Your task to perform on an android device: What's the weather today? Image 0: 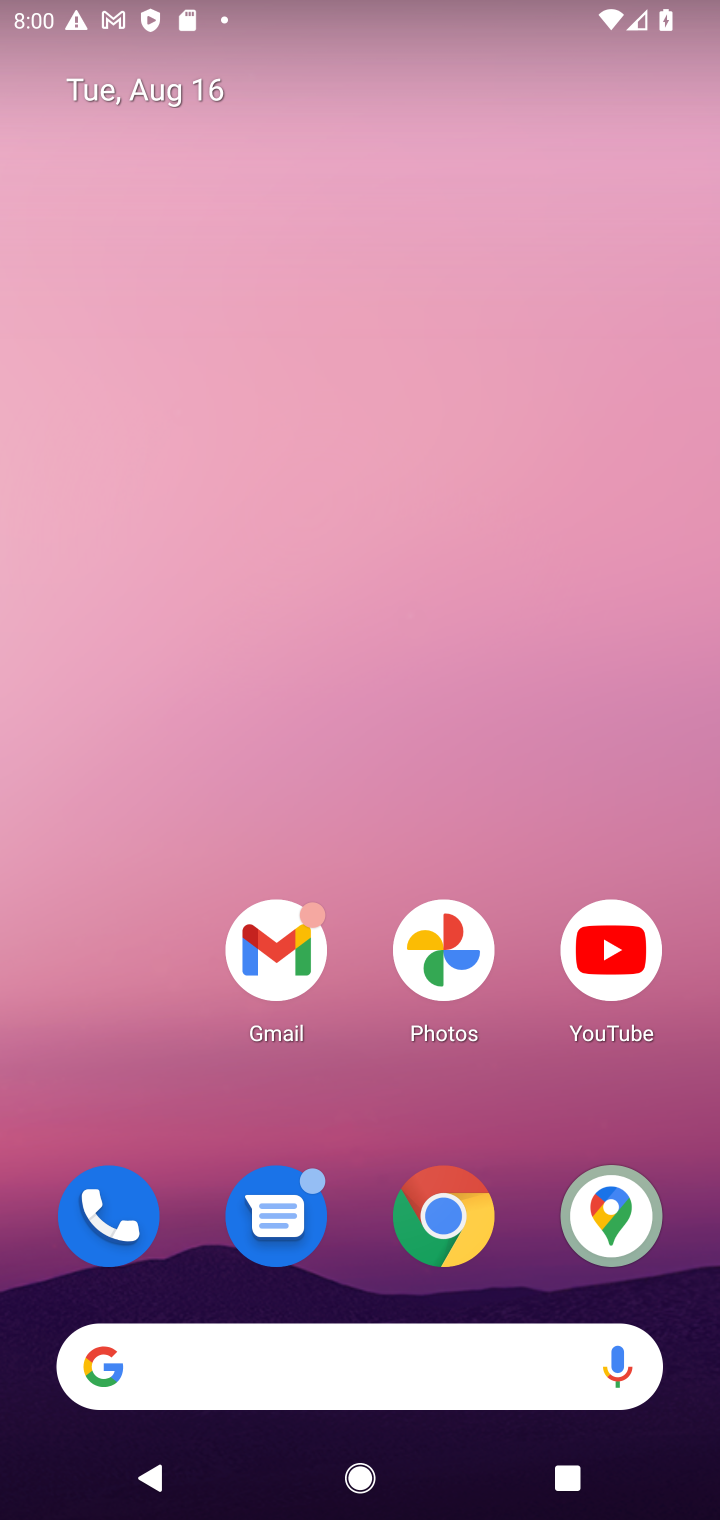
Step 0: click (335, 1353)
Your task to perform on an android device: What's the weather today? Image 1: 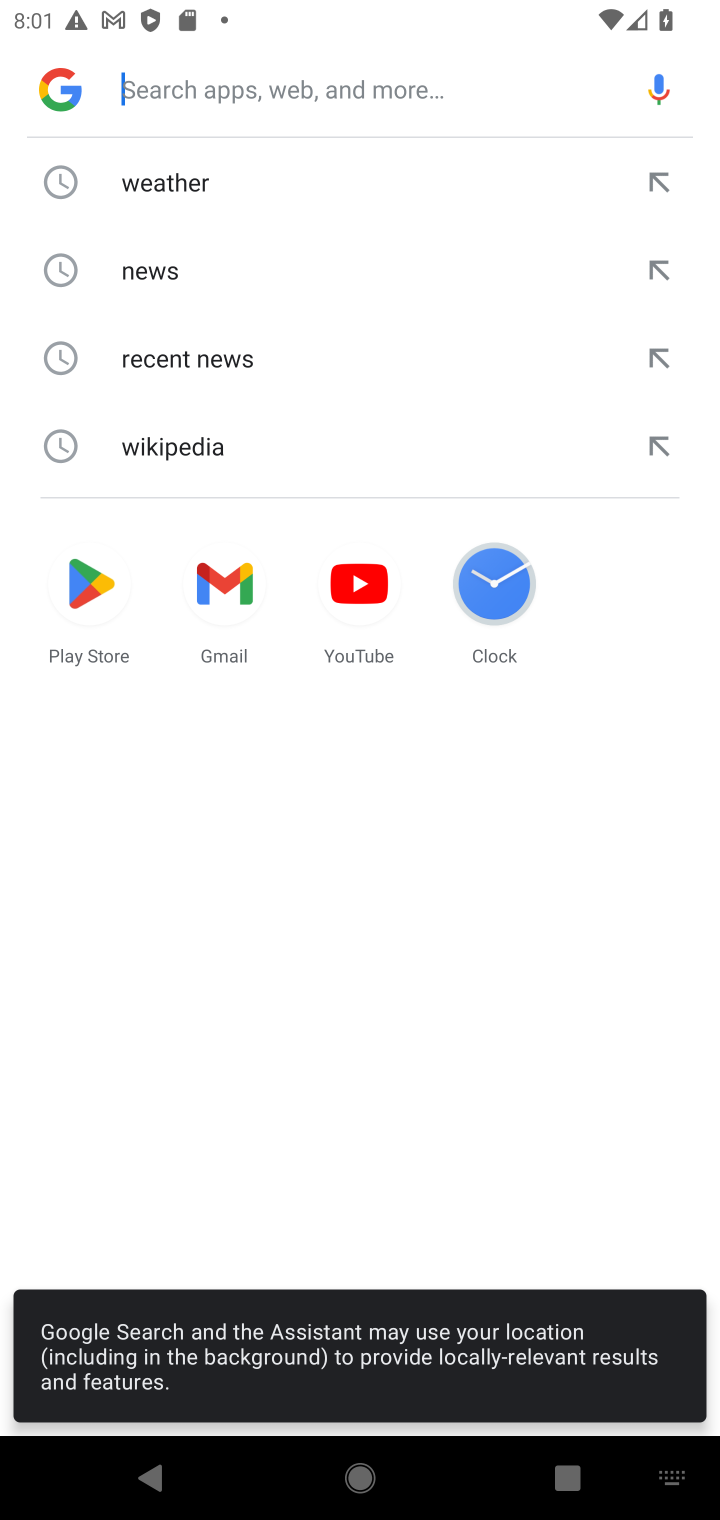
Step 1: click (160, 186)
Your task to perform on an android device: What's the weather today? Image 2: 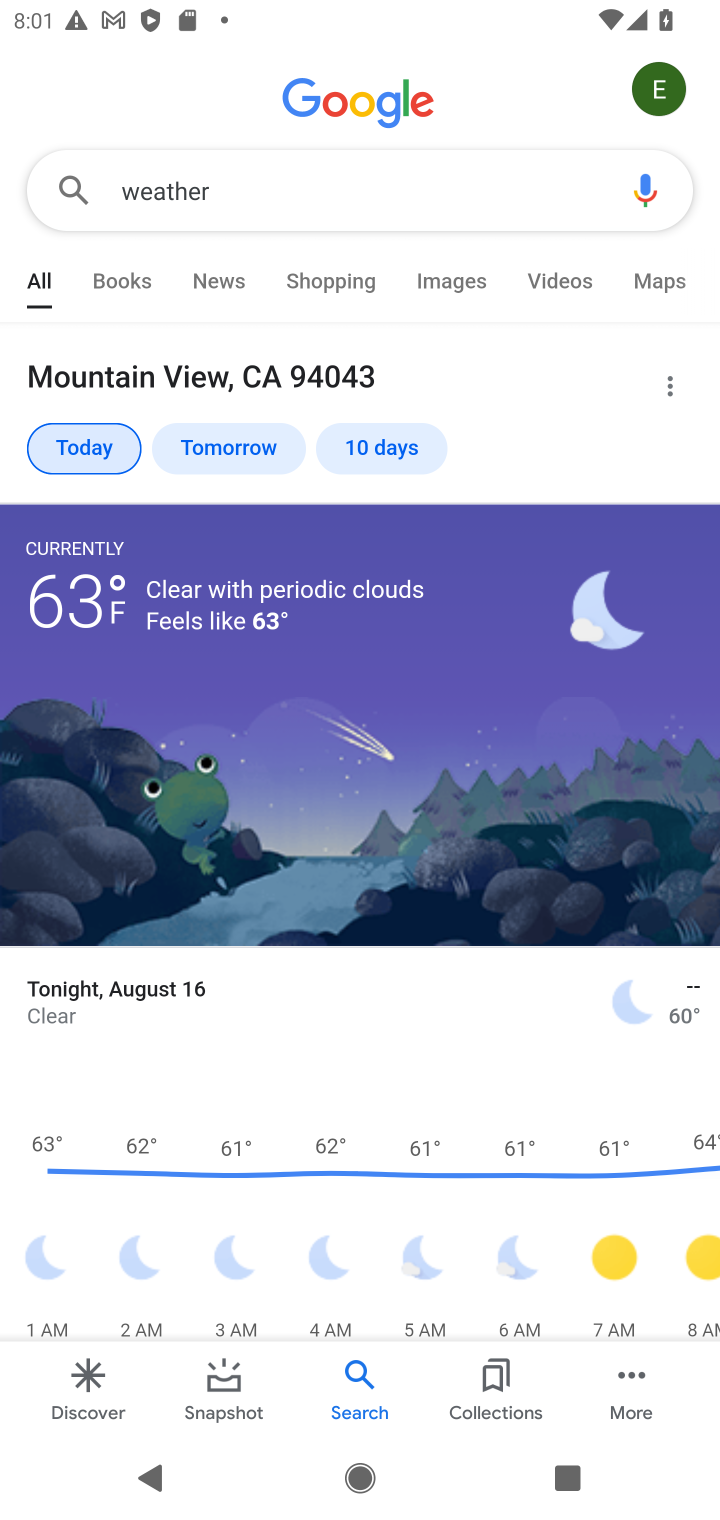
Step 2: click (74, 409)
Your task to perform on an android device: What's the weather today? Image 3: 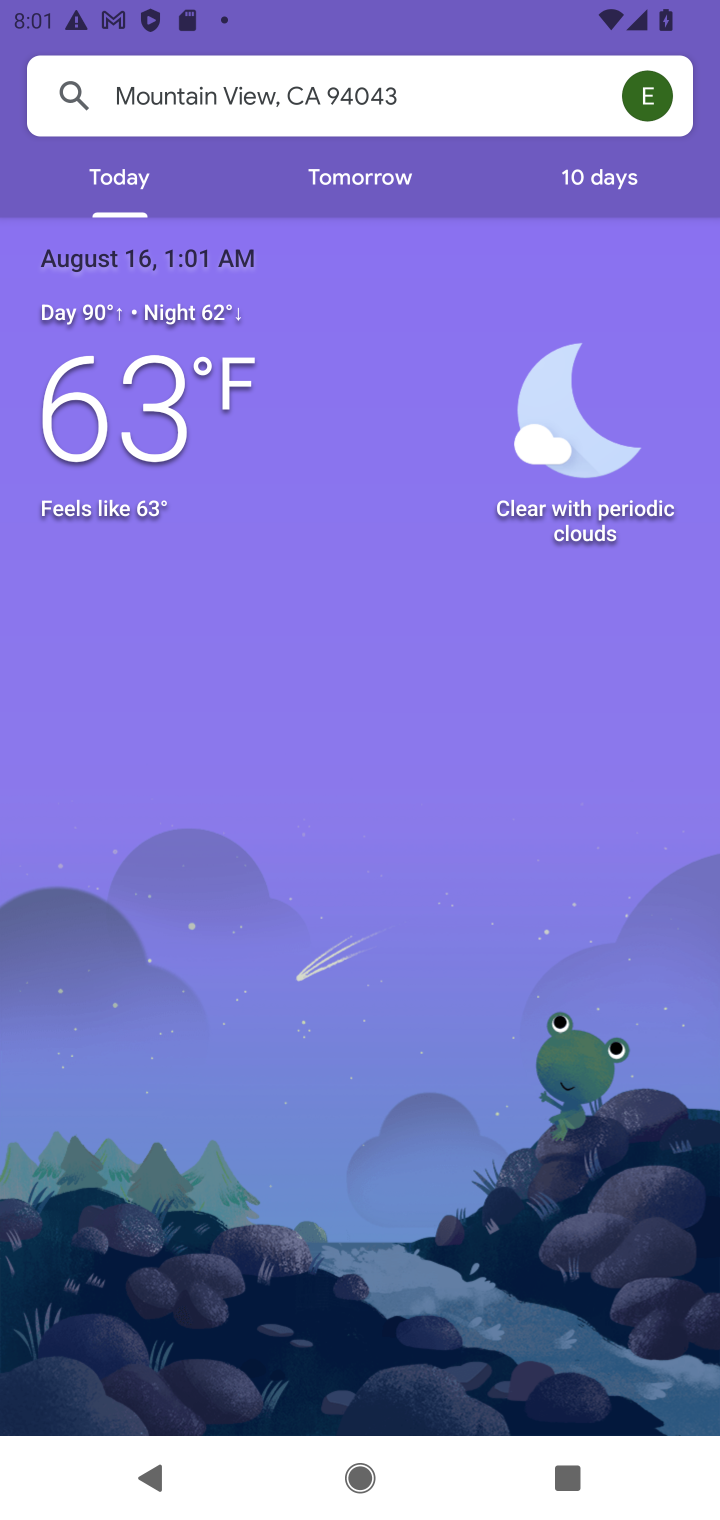
Step 3: task complete